Your task to perform on an android device: empty trash in the gmail app Image 0: 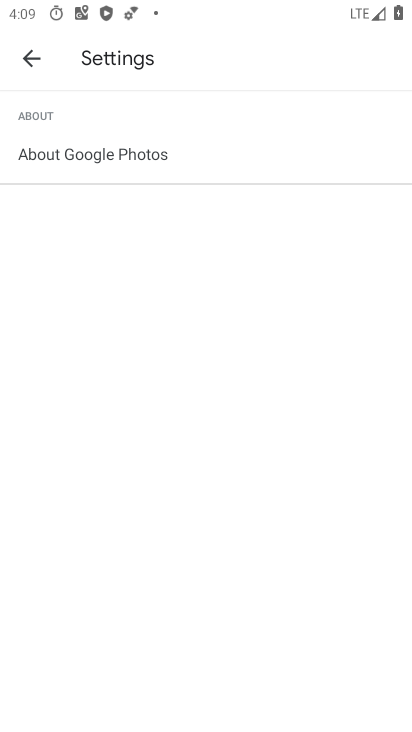
Step 0: click (19, 56)
Your task to perform on an android device: empty trash in the gmail app Image 1: 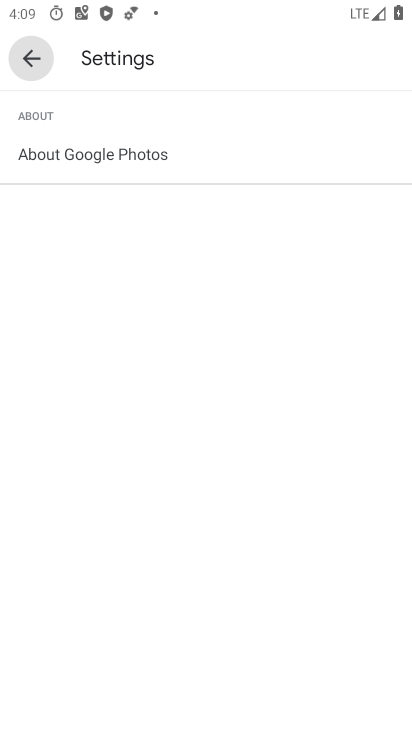
Step 1: click (19, 56)
Your task to perform on an android device: empty trash in the gmail app Image 2: 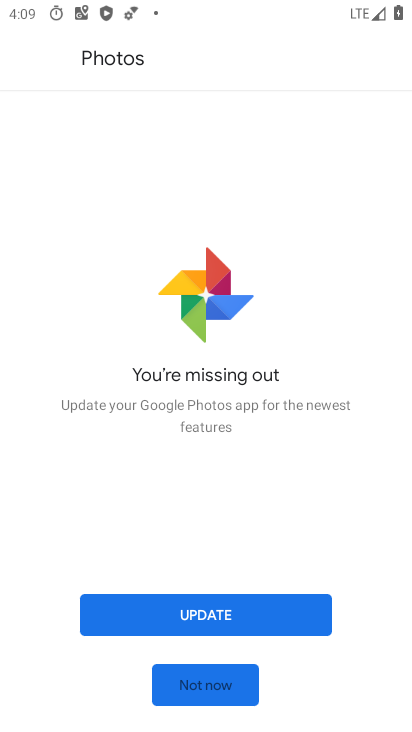
Step 2: press home button
Your task to perform on an android device: empty trash in the gmail app Image 3: 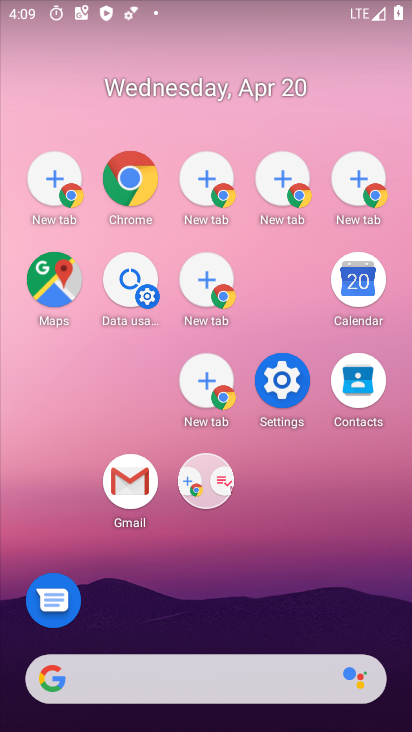
Step 3: click (123, 483)
Your task to perform on an android device: empty trash in the gmail app Image 4: 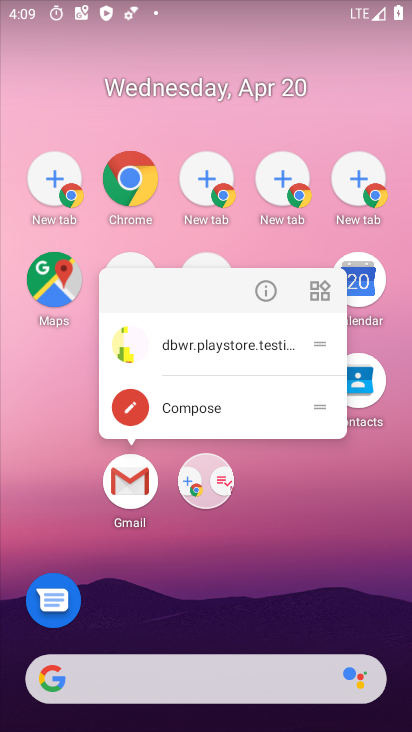
Step 4: click (309, 503)
Your task to perform on an android device: empty trash in the gmail app Image 5: 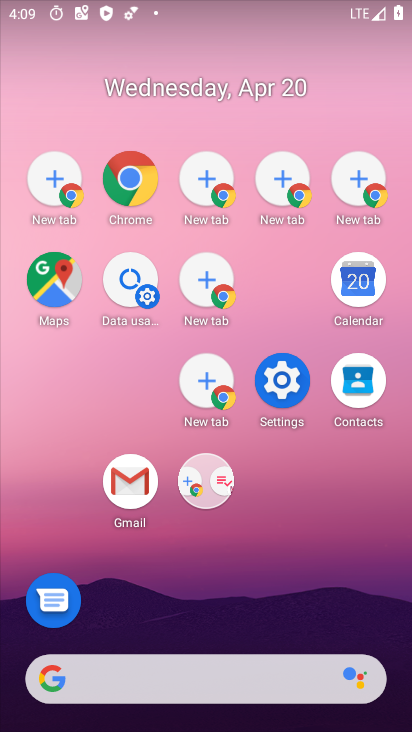
Step 5: click (124, 494)
Your task to perform on an android device: empty trash in the gmail app Image 6: 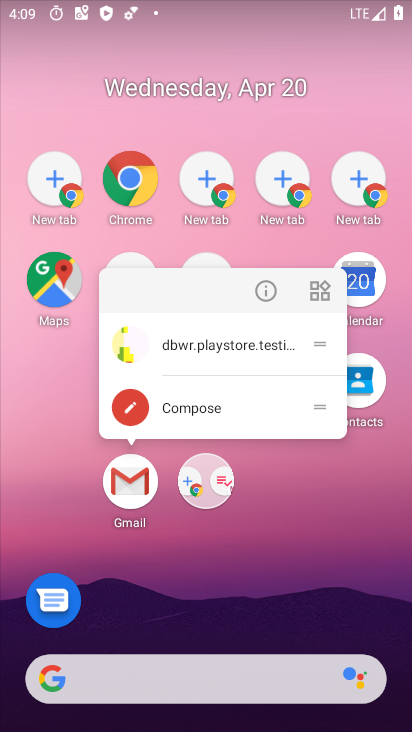
Step 6: click (122, 477)
Your task to perform on an android device: empty trash in the gmail app Image 7: 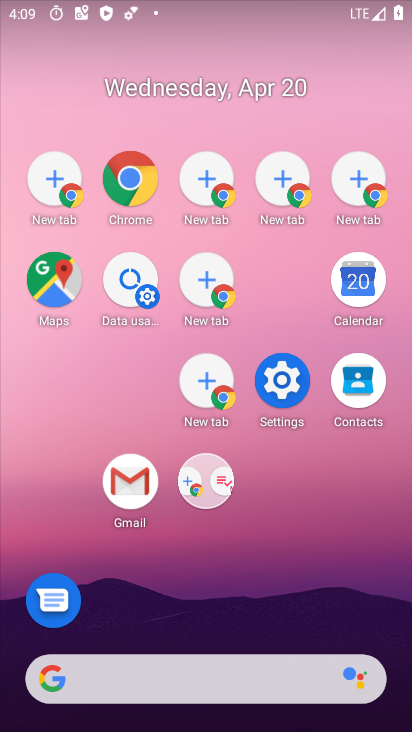
Step 7: click (122, 477)
Your task to perform on an android device: empty trash in the gmail app Image 8: 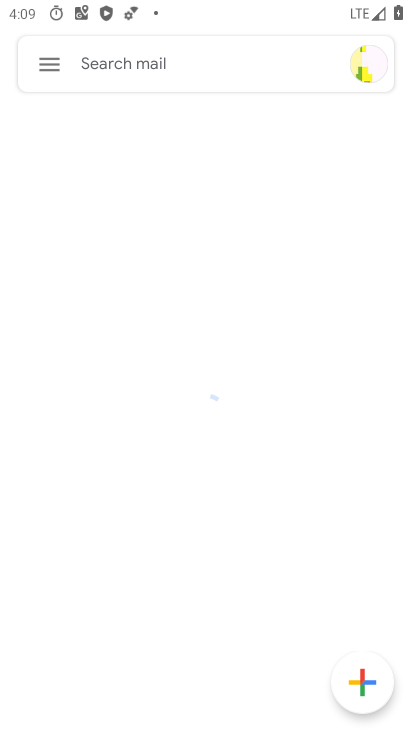
Step 8: click (46, 70)
Your task to perform on an android device: empty trash in the gmail app Image 9: 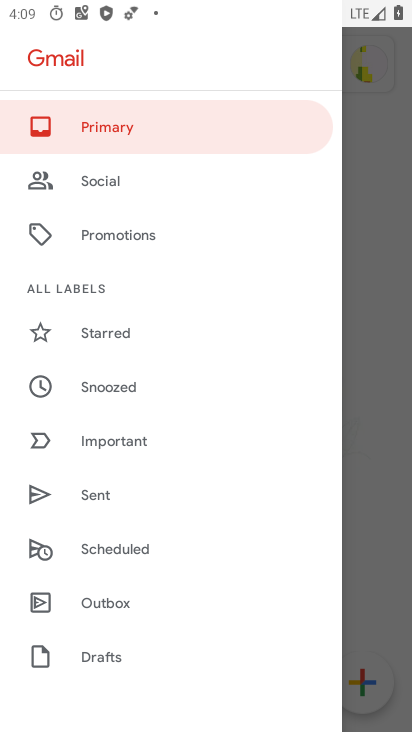
Step 9: drag from (140, 391) to (128, 64)
Your task to perform on an android device: empty trash in the gmail app Image 10: 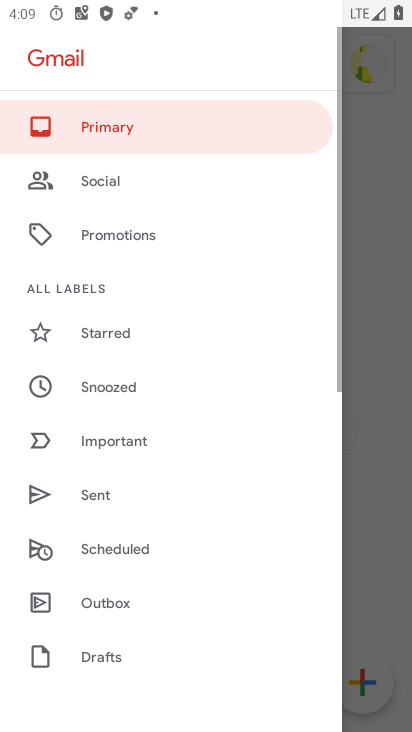
Step 10: drag from (159, 524) to (106, 89)
Your task to perform on an android device: empty trash in the gmail app Image 11: 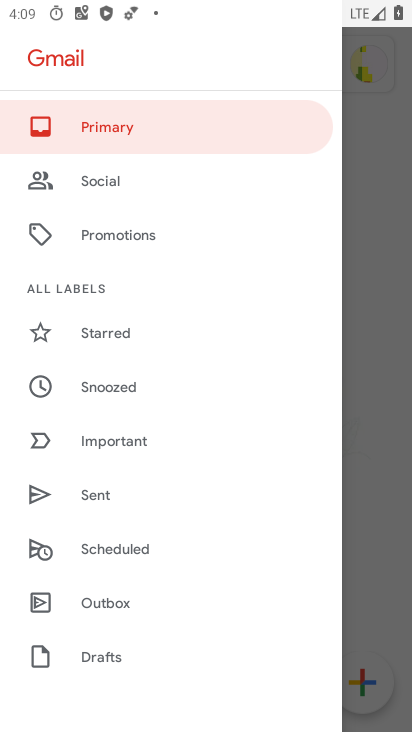
Step 11: drag from (133, 627) to (171, 194)
Your task to perform on an android device: empty trash in the gmail app Image 12: 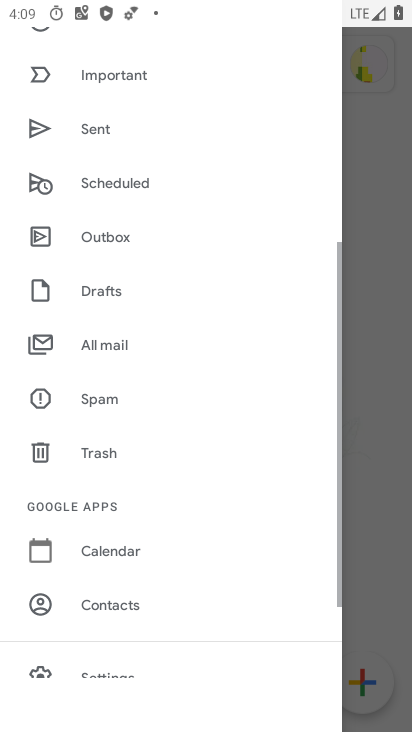
Step 12: drag from (89, 432) to (44, 144)
Your task to perform on an android device: empty trash in the gmail app Image 13: 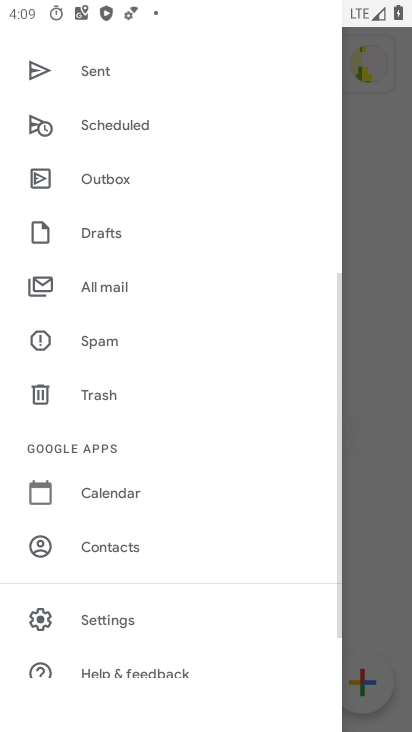
Step 13: drag from (136, 548) to (134, 242)
Your task to perform on an android device: empty trash in the gmail app Image 14: 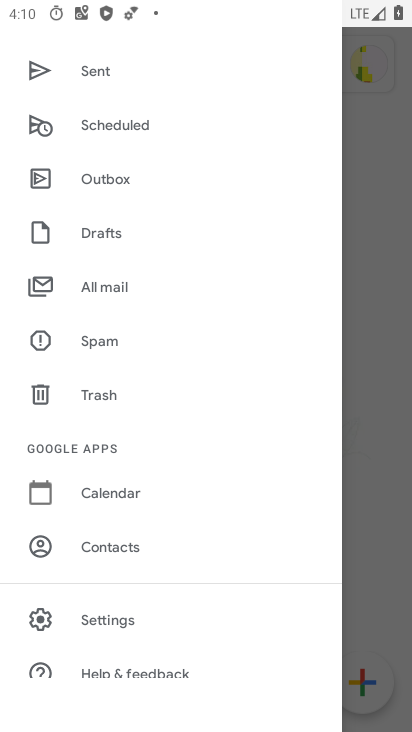
Step 14: click (89, 395)
Your task to perform on an android device: empty trash in the gmail app Image 15: 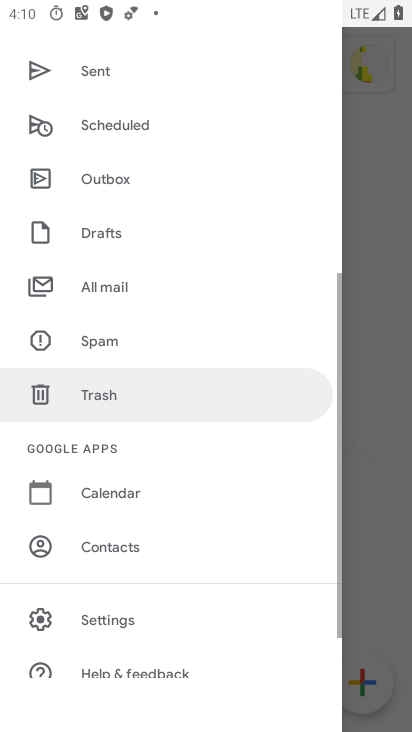
Step 15: click (89, 390)
Your task to perform on an android device: empty trash in the gmail app Image 16: 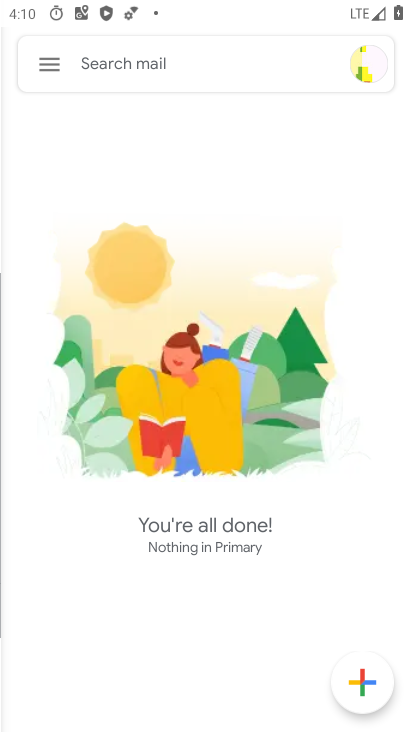
Step 16: click (88, 386)
Your task to perform on an android device: empty trash in the gmail app Image 17: 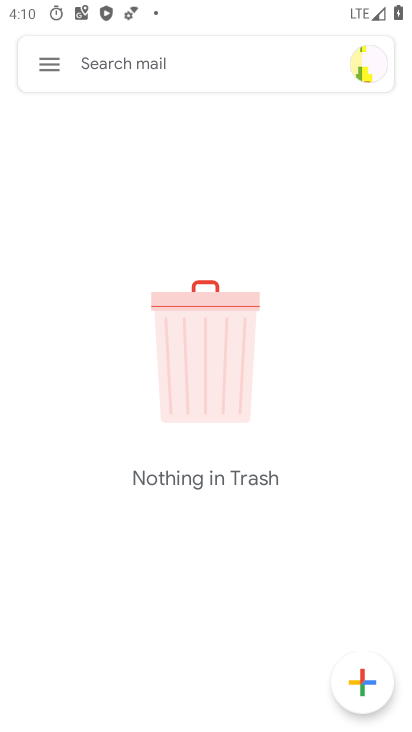
Step 17: task complete